Your task to perform on an android device: Go to Amazon Image 0: 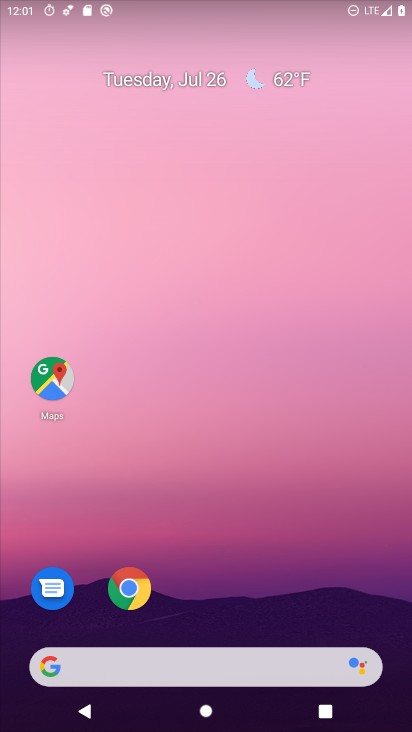
Step 0: click (138, 594)
Your task to perform on an android device: Go to Amazon Image 1: 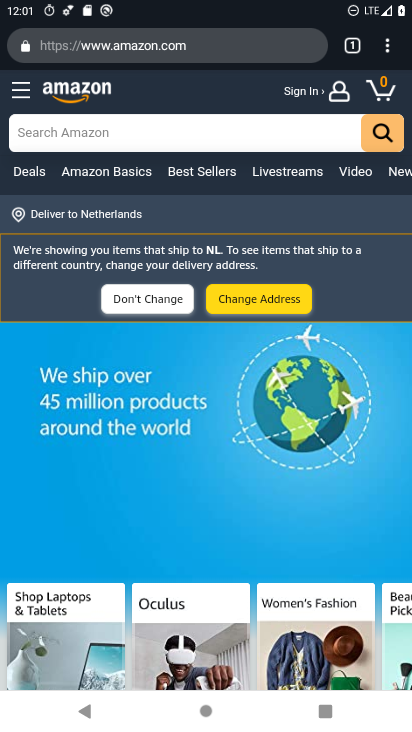
Step 1: task complete